Your task to perform on an android device: Open the calendar and show me this week's events Image 0: 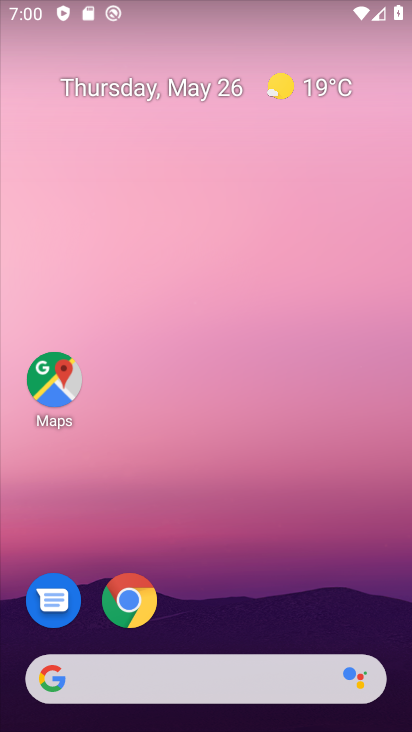
Step 0: drag from (231, 693) to (263, 152)
Your task to perform on an android device: Open the calendar and show me this week's events Image 1: 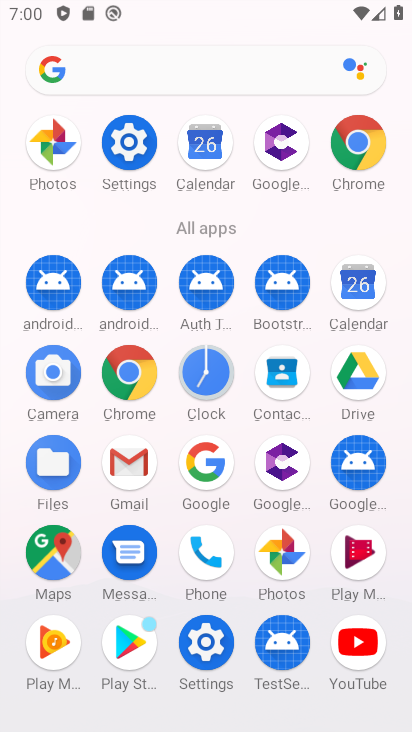
Step 1: click (363, 310)
Your task to perform on an android device: Open the calendar and show me this week's events Image 2: 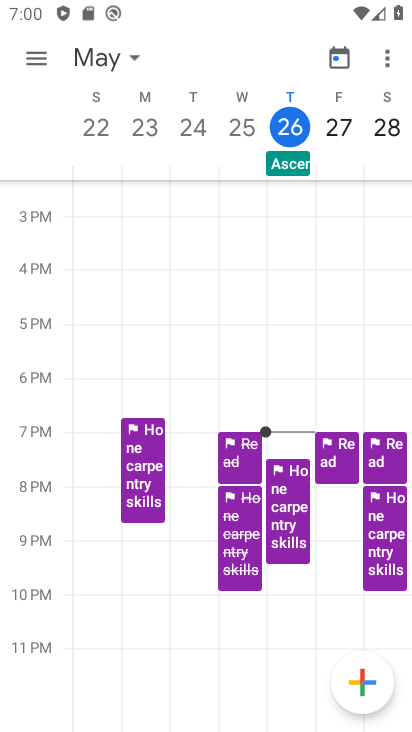
Step 2: click (42, 71)
Your task to perform on an android device: Open the calendar and show me this week's events Image 3: 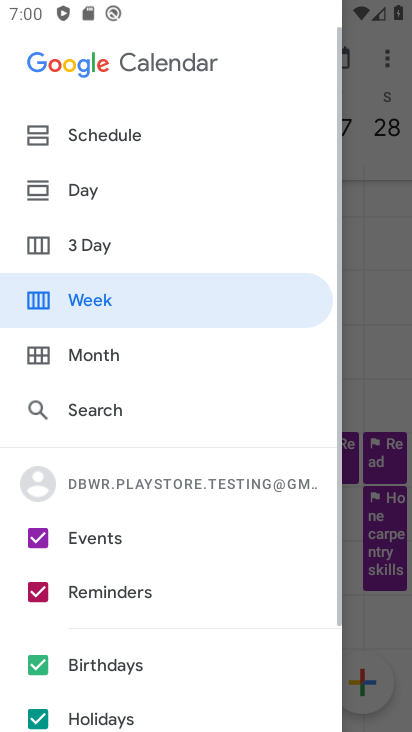
Step 3: click (105, 127)
Your task to perform on an android device: Open the calendar and show me this week's events Image 4: 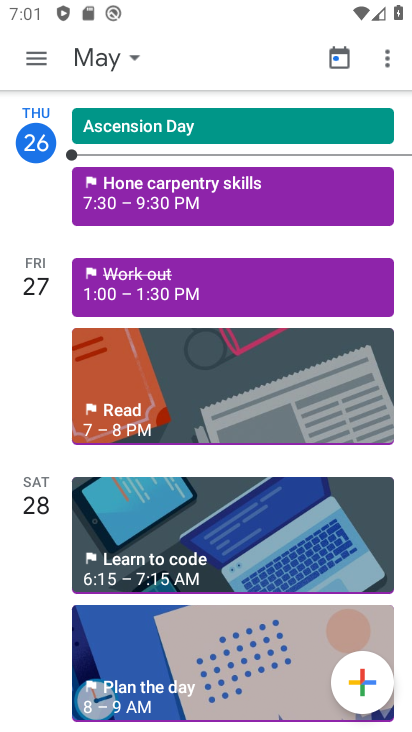
Step 4: task complete